Your task to perform on an android device: move a message to another label in the gmail app Image 0: 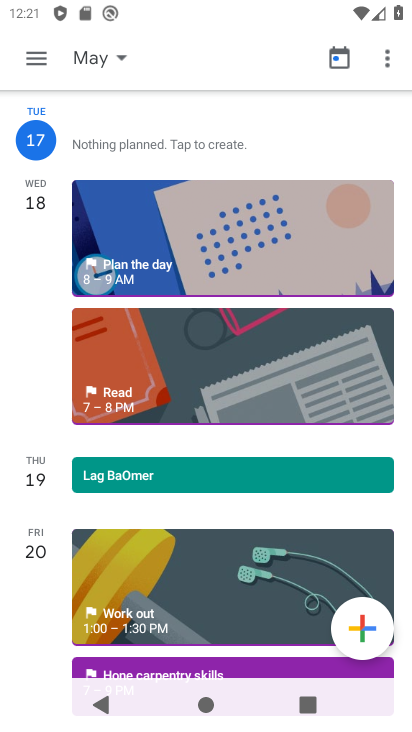
Step 0: press home button
Your task to perform on an android device: move a message to another label in the gmail app Image 1: 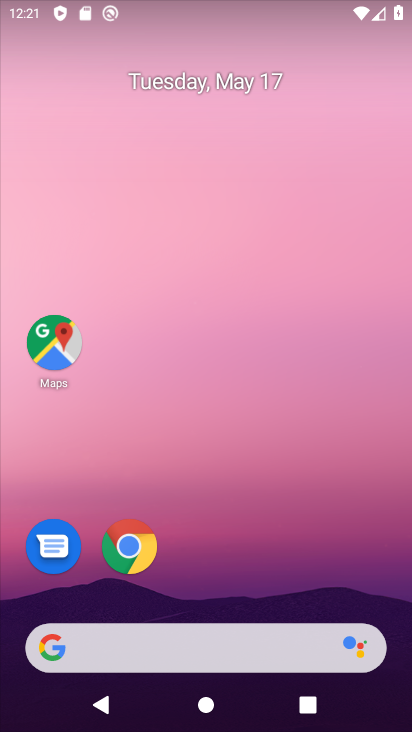
Step 1: drag from (215, 584) to (224, 194)
Your task to perform on an android device: move a message to another label in the gmail app Image 2: 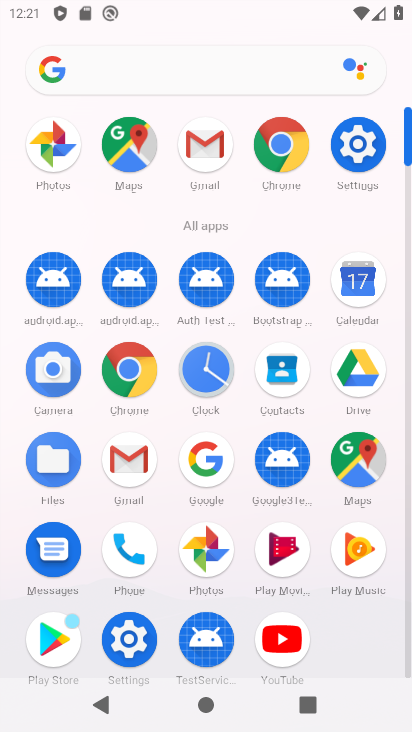
Step 2: click (196, 164)
Your task to perform on an android device: move a message to another label in the gmail app Image 3: 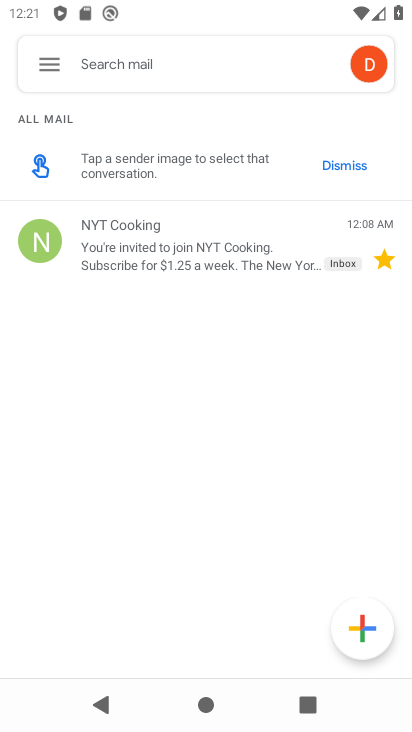
Step 3: click (39, 69)
Your task to perform on an android device: move a message to another label in the gmail app Image 4: 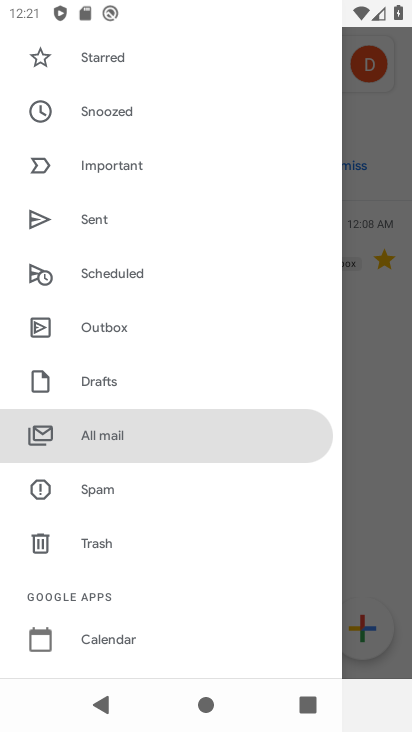
Step 4: click (134, 446)
Your task to perform on an android device: move a message to another label in the gmail app Image 5: 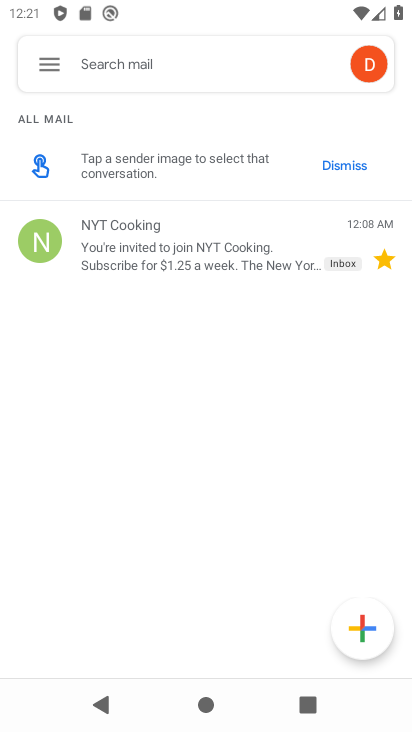
Step 5: click (228, 255)
Your task to perform on an android device: move a message to another label in the gmail app Image 6: 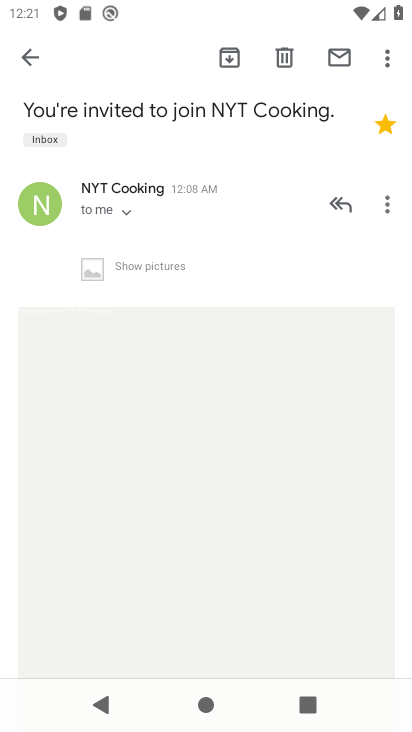
Step 6: click (127, 208)
Your task to perform on an android device: move a message to another label in the gmail app Image 7: 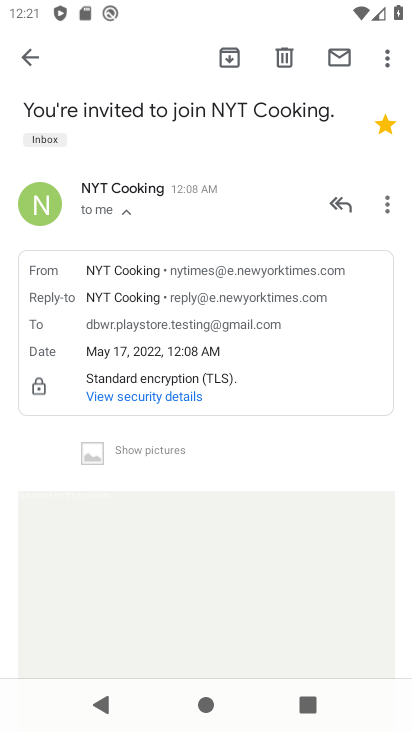
Step 7: click (385, 56)
Your task to perform on an android device: move a message to another label in the gmail app Image 8: 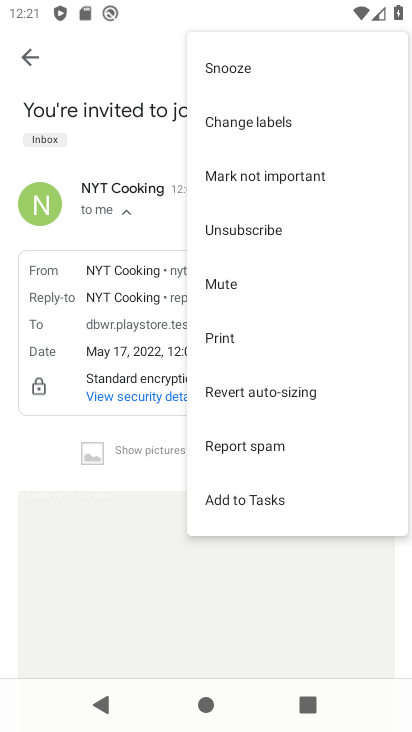
Step 8: drag from (288, 363) to (301, 217)
Your task to perform on an android device: move a message to another label in the gmail app Image 9: 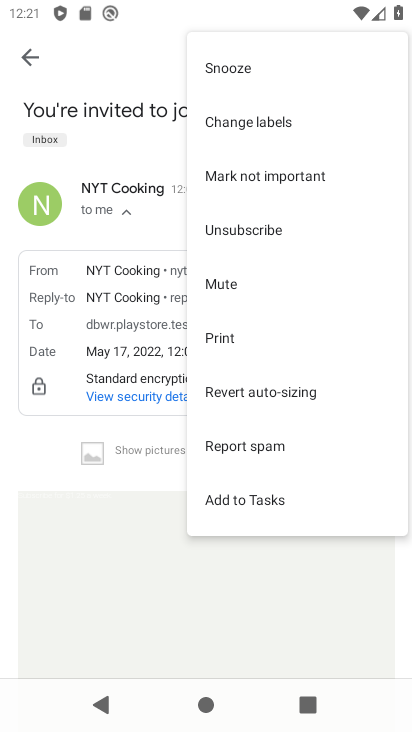
Step 9: click (256, 130)
Your task to perform on an android device: move a message to another label in the gmail app Image 10: 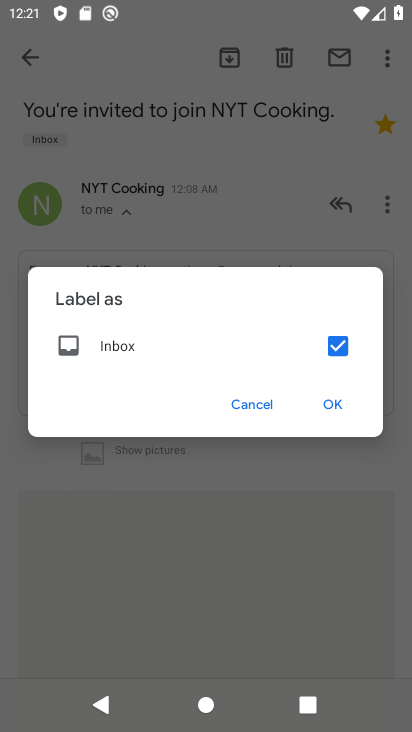
Step 10: click (336, 349)
Your task to perform on an android device: move a message to another label in the gmail app Image 11: 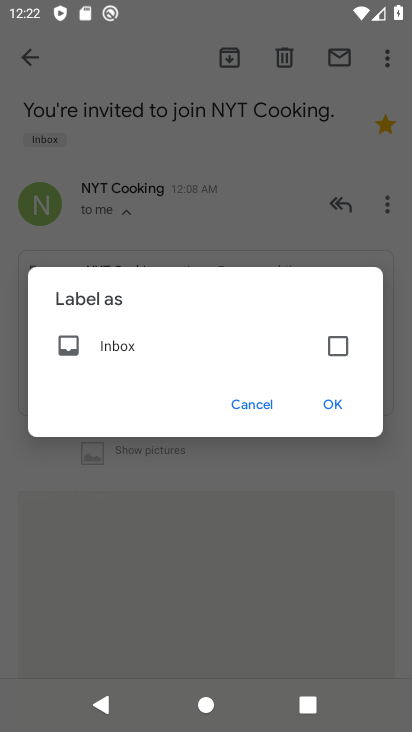
Step 11: click (328, 403)
Your task to perform on an android device: move a message to another label in the gmail app Image 12: 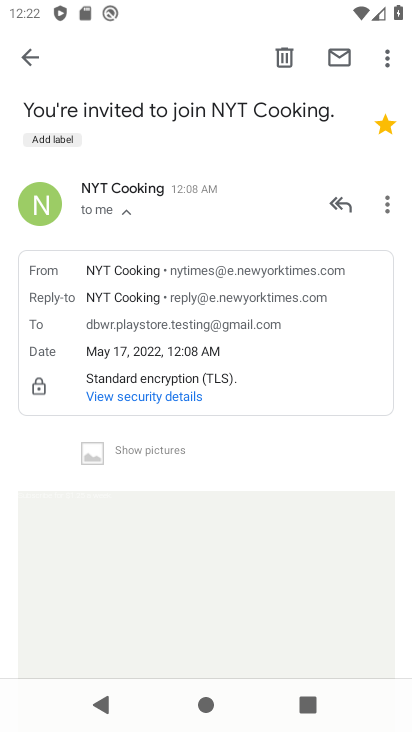
Step 12: task complete